Your task to perform on an android device: clear all cookies in the chrome app Image 0: 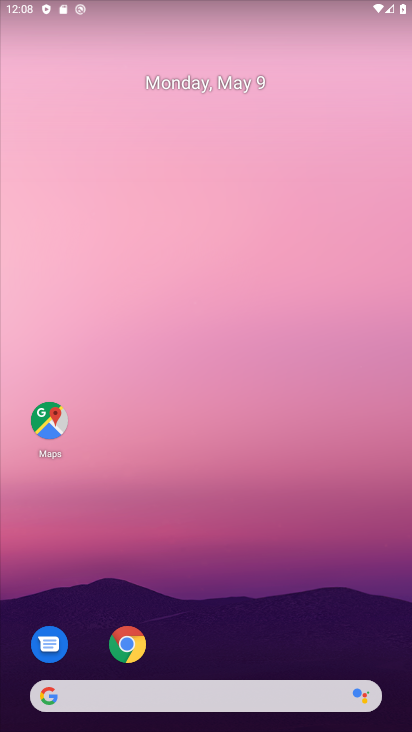
Step 0: drag from (372, 598) to (116, 9)
Your task to perform on an android device: clear all cookies in the chrome app Image 1: 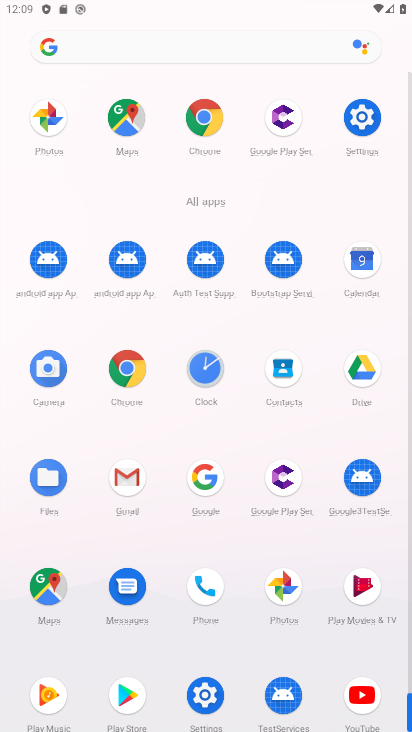
Step 1: click (211, 120)
Your task to perform on an android device: clear all cookies in the chrome app Image 2: 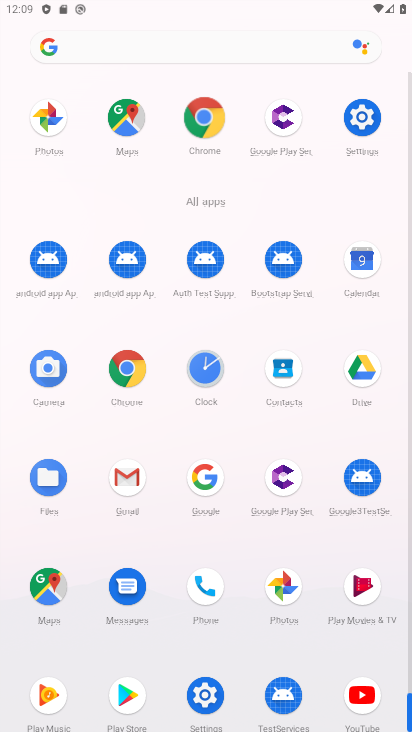
Step 2: click (211, 120)
Your task to perform on an android device: clear all cookies in the chrome app Image 3: 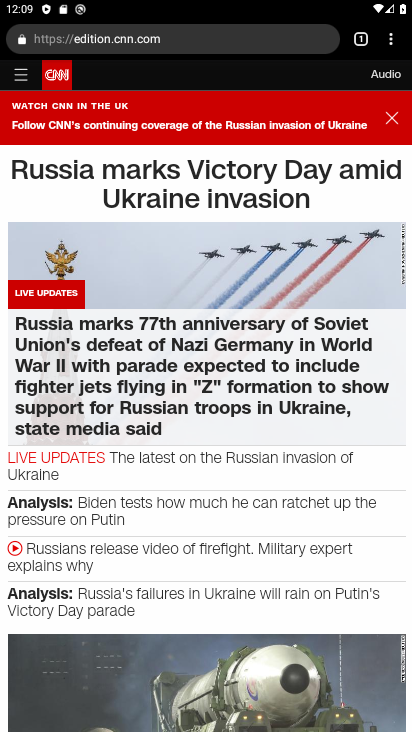
Step 3: drag from (390, 38) to (236, 439)
Your task to perform on an android device: clear all cookies in the chrome app Image 4: 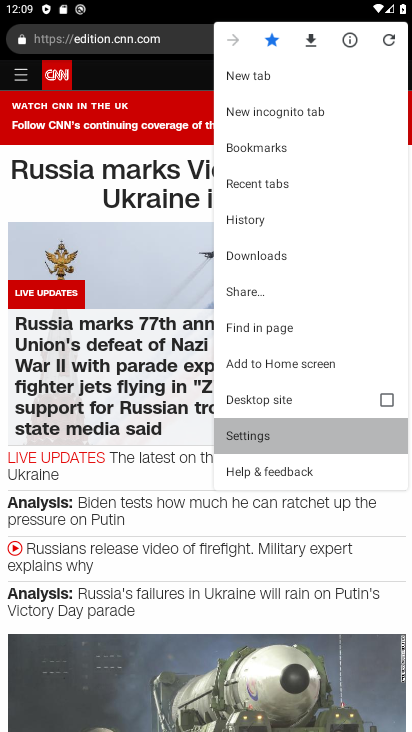
Step 4: click (236, 439)
Your task to perform on an android device: clear all cookies in the chrome app Image 5: 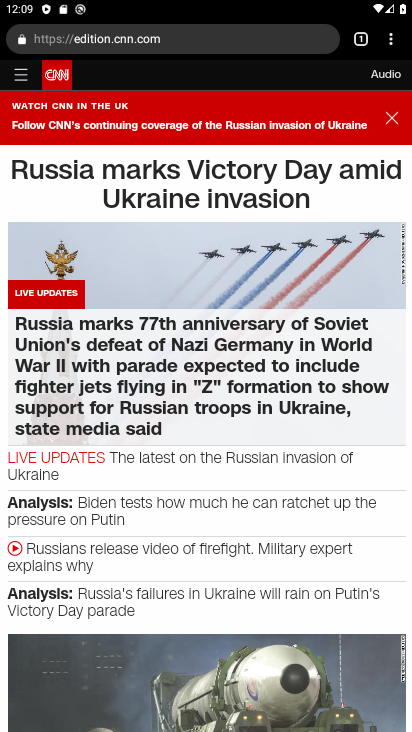
Step 5: click (236, 439)
Your task to perform on an android device: clear all cookies in the chrome app Image 6: 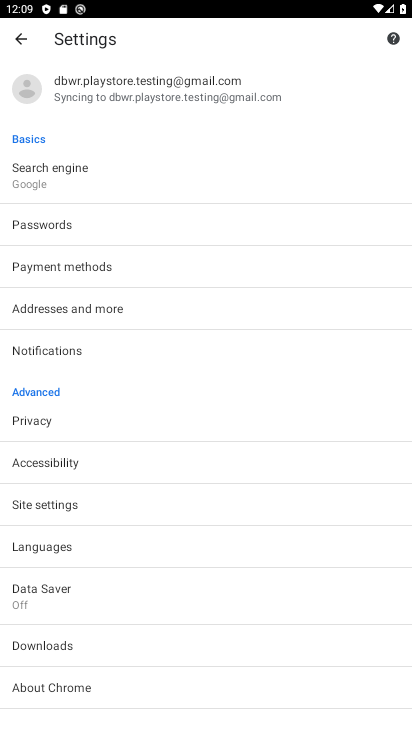
Step 6: click (29, 503)
Your task to perform on an android device: clear all cookies in the chrome app Image 7: 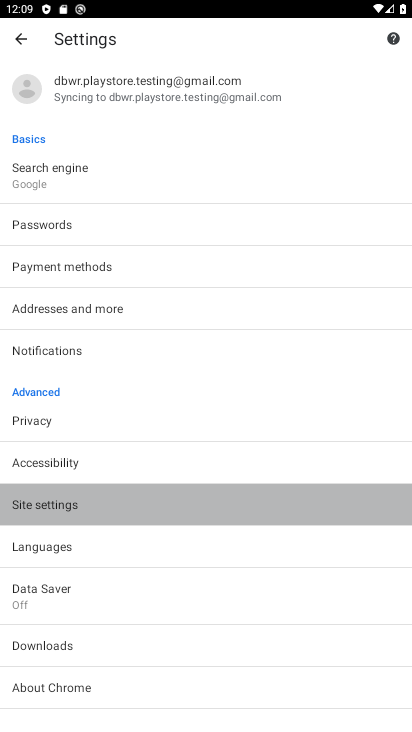
Step 7: click (30, 504)
Your task to perform on an android device: clear all cookies in the chrome app Image 8: 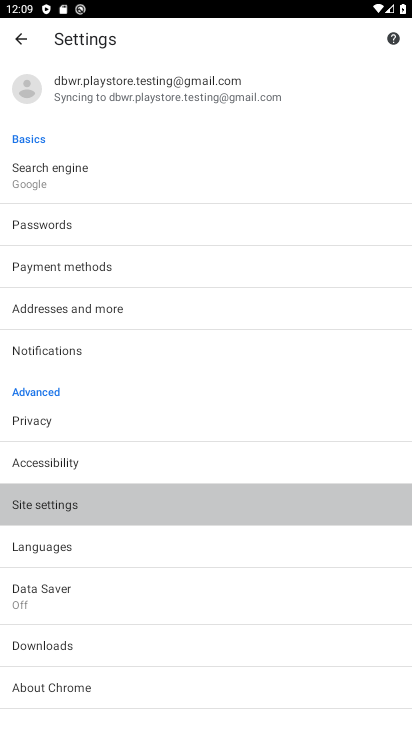
Step 8: click (31, 503)
Your task to perform on an android device: clear all cookies in the chrome app Image 9: 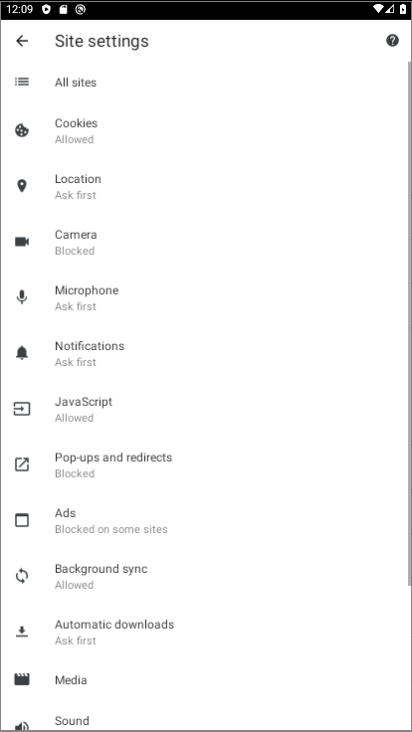
Step 9: click (31, 503)
Your task to perform on an android device: clear all cookies in the chrome app Image 10: 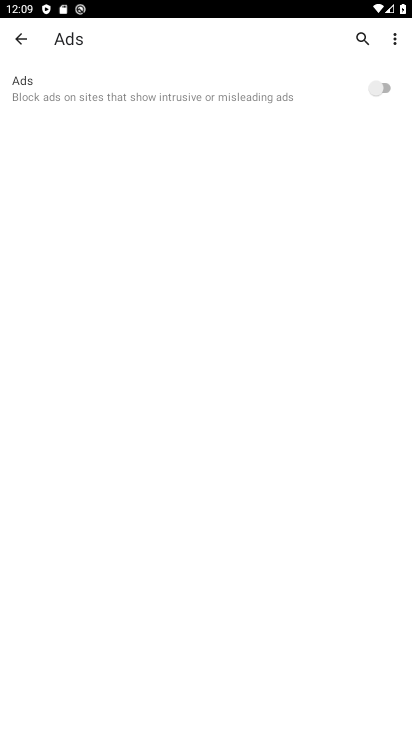
Step 10: click (16, 36)
Your task to perform on an android device: clear all cookies in the chrome app Image 11: 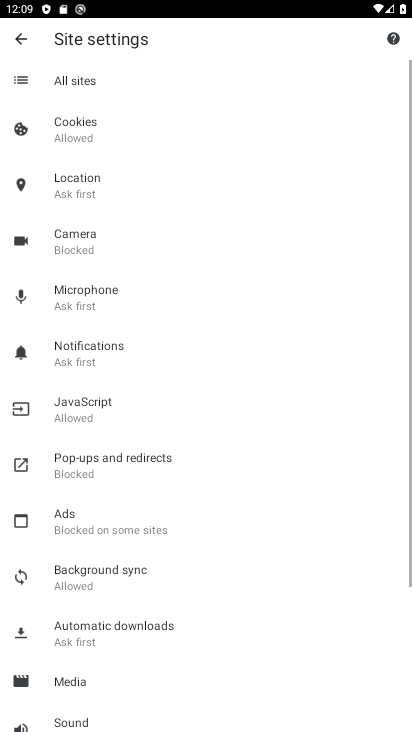
Step 11: click (20, 36)
Your task to perform on an android device: clear all cookies in the chrome app Image 12: 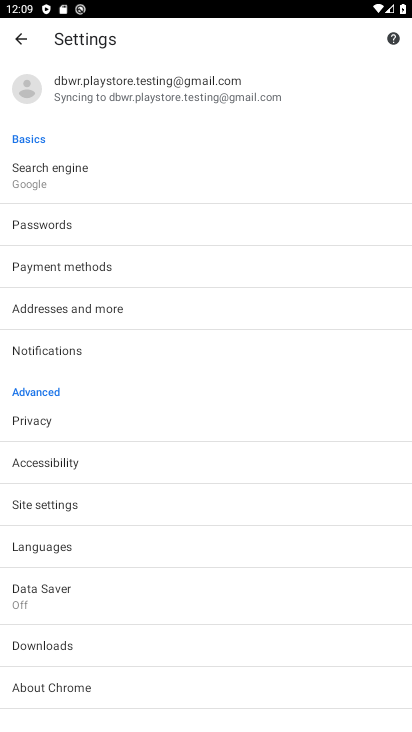
Step 12: click (53, 501)
Your task to perform on an android device: clear all cookies in the chrome app Image 13: 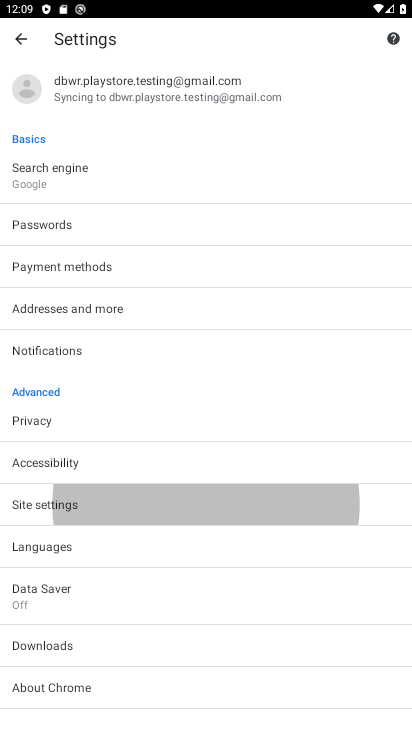
Step 13: click (53, 501)
Your task to perform on an android device: clear all cookies in the chrome app Image 14: 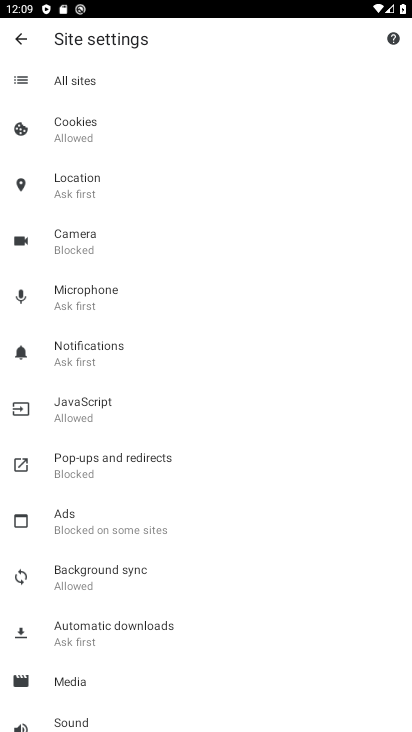
Step 14: click (69, 127)
Your task to perform on an android device: clear all cookies in the chrome app Image 15: 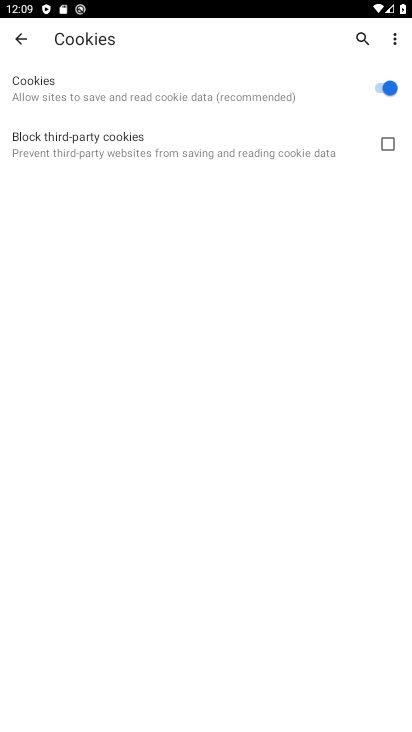
Step 15: click (391, 83)
Your task to perform on an android device: clear all cookies in the chrome app Image 16: 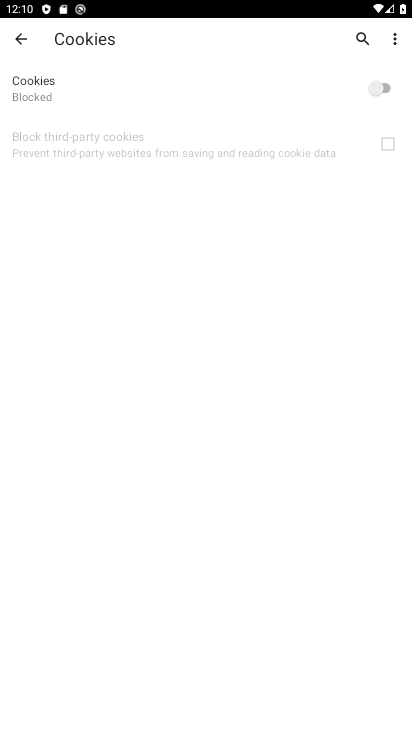
Step 16: task complete